Your task to perform on an android device: What's the weather today? Image 0: 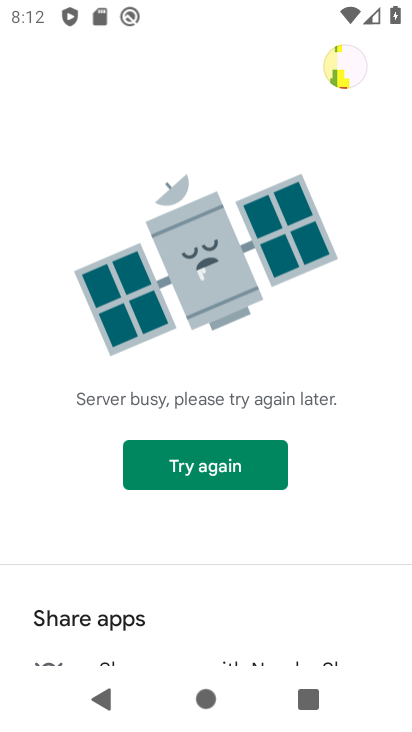
Step 0: press home button
Your task to perform on an android device: What's the weather today? Image 1: 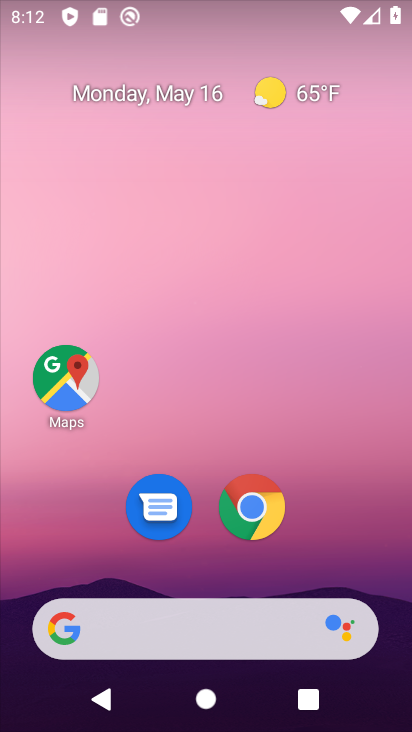
Step 1: click (218, 624)
Your task to perform on an android device: What's the weather today? Image 2: 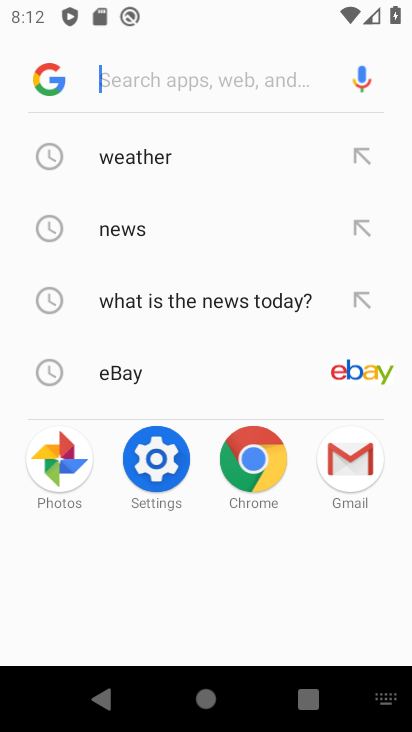
Step 2: click (146, 162)
Your task to perform on an android device: What's the weather today? Image 3: 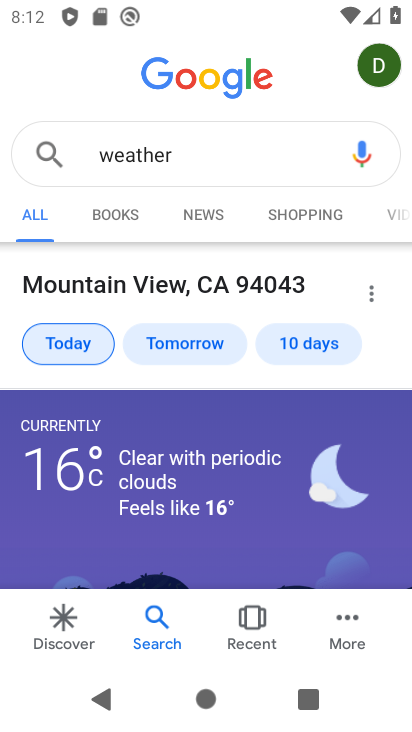
Step 3: task complete